Your task to perform on an android device: Search for seafood restaurants on Google Maps Image 0: 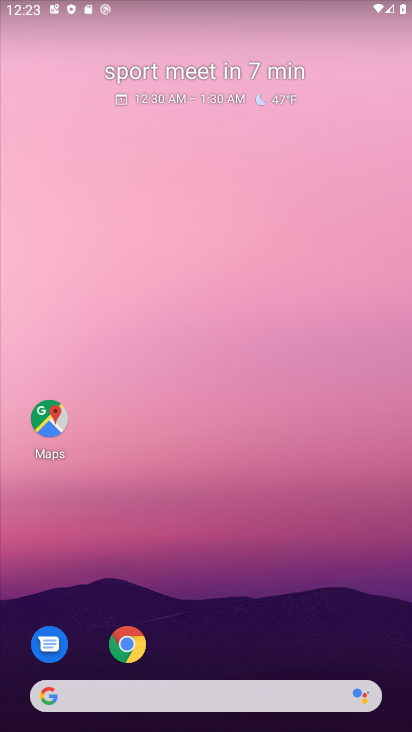
Step 0: click (58, 412)
Your task to perform on an android device: Search for seafood restaurants on Google Maps Image 1: 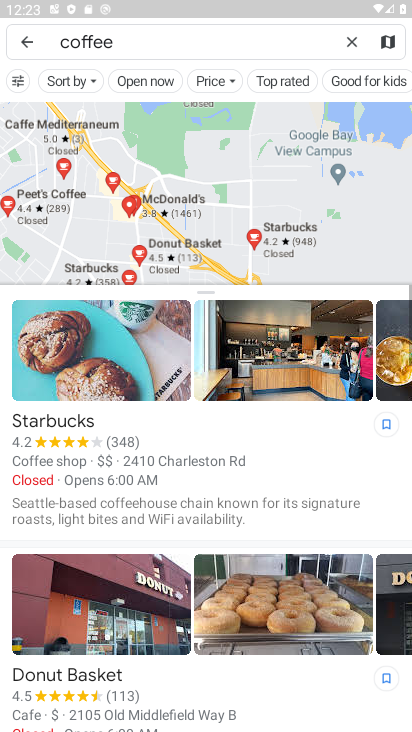
Step 1: click (346, 39)
Your task to perform on an android device: Search for seafood restaurants on Google Maps Image 2: 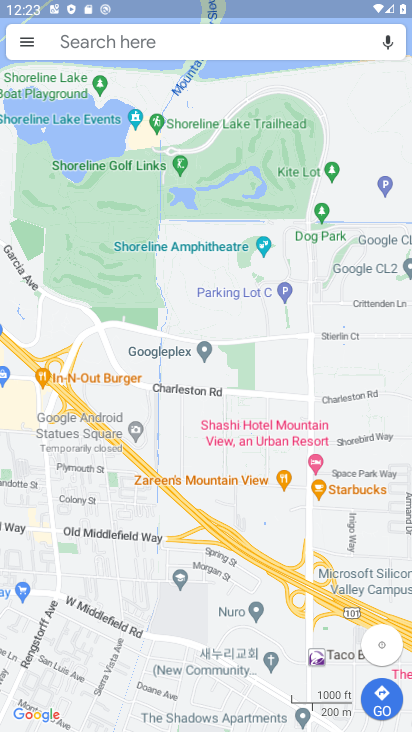
Step 2: click (156, 40)
Your task to perform on an android device: Search for seafood restaurants on Google Maps Image 3: 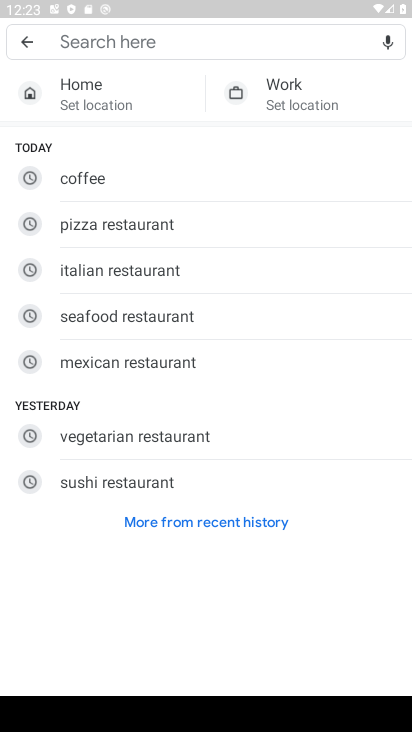
Step 3: click (158, 312)
Your task to perform on an android device: Search for seafood restaurants on Google Maps Image 4: 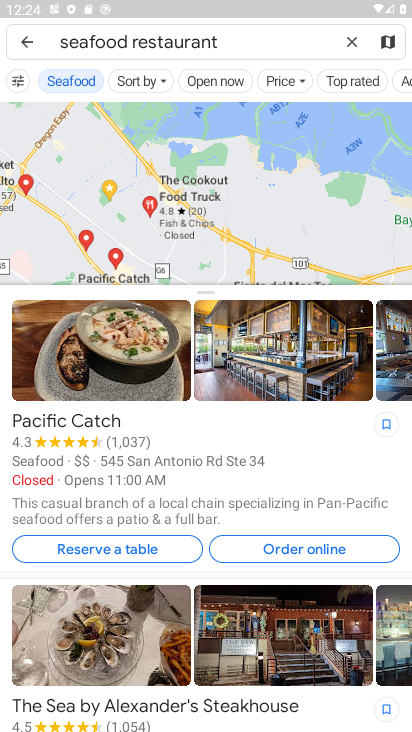
Step 4: task complete